Your task to perform on an android device: turn off notifications in google photos Image 0: 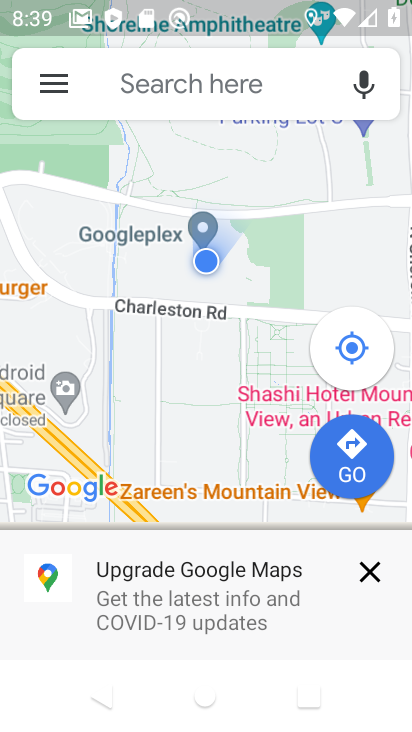
Step 0: press home button
Your task to perform on an android device: turn off notifications in google photos Image 1: 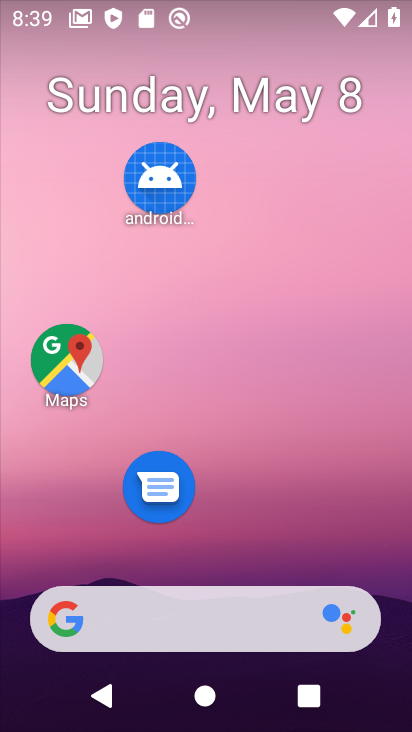
Step 1: drag from (272, 556) to (304, 44)
Your task to perform on an android device: turn off notifications in google photos Image 2: 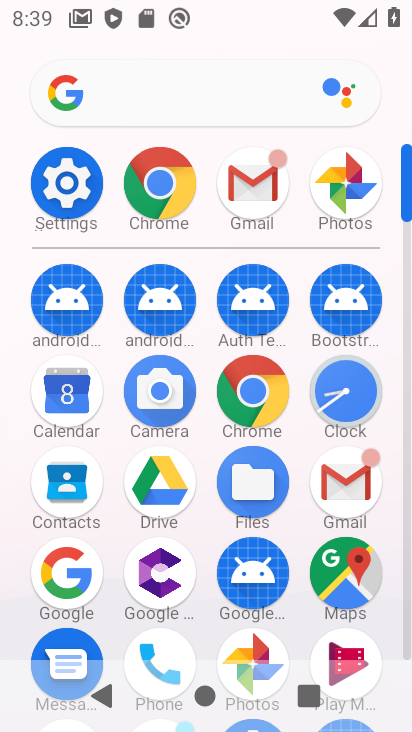
Step 2: click (240, 651)
Your task to perform on an android device: turn off notifications in google photos Image 3: 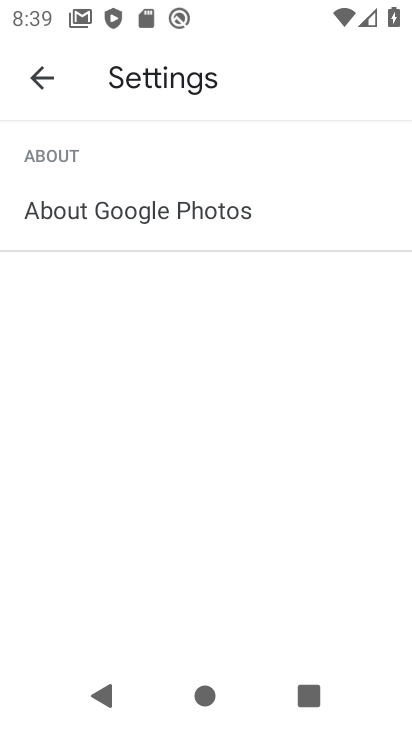
Step 3: click (47, 80)
Your task to perform on an android device: turn off notifications in google photos Image 4: 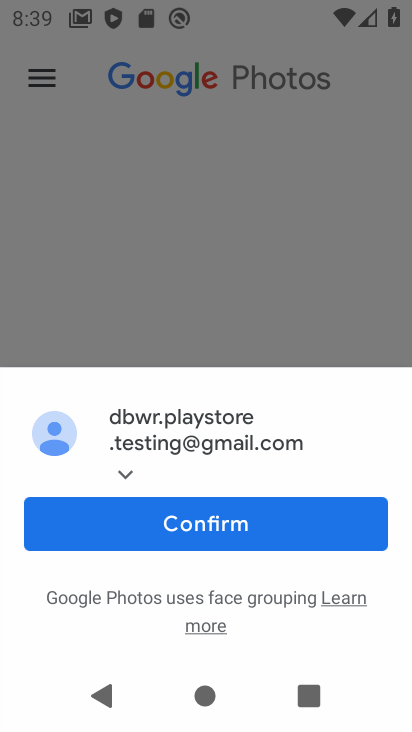
Step 4: click (62, 79)
Your task to perform on an android device: turn off notifications in google photos Image 5: 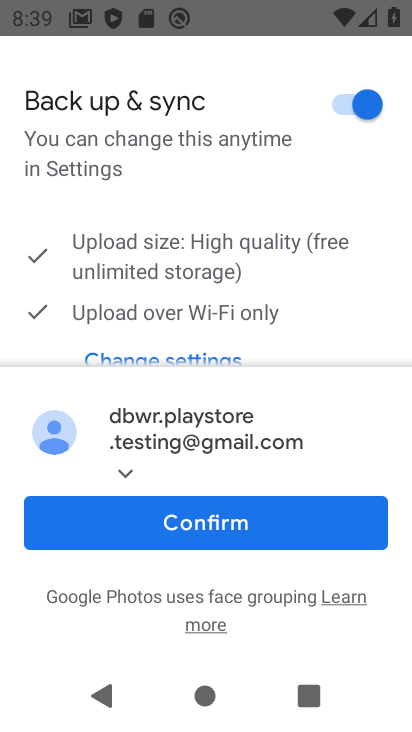
Step 5: click (200, 519)
Your task to perform on an android device: turn off notifications in google photos Image 6: 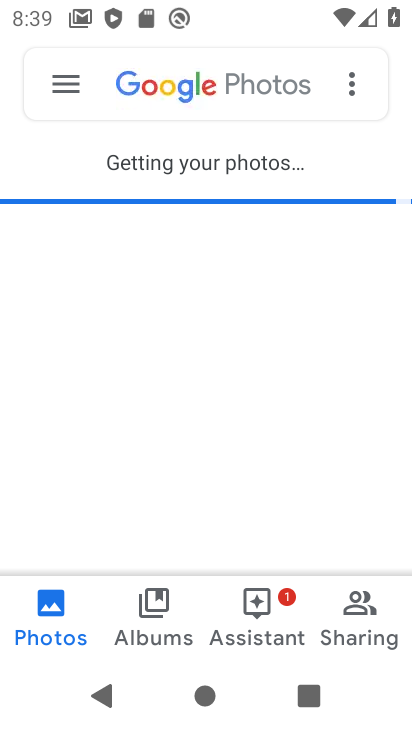
Step 6: click (66, 87)
Your task to perform on an android device: turn off notifications in google photos Image 7: 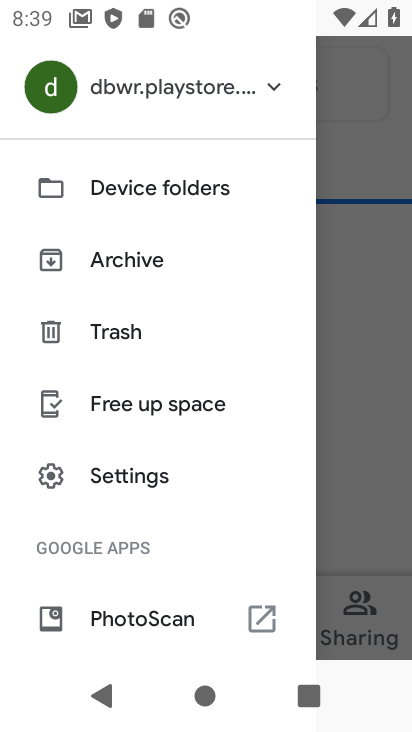
Step 7: click (98, 487)
Your task to perform on an android device: turn off notifications in google photos Image 8: 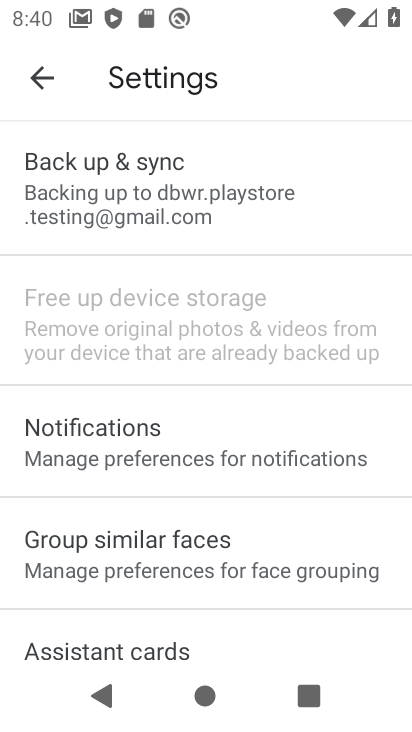
Step 8: click (218, 434)
Your task to perform on an android device: turn off notifications in google photos Image 9: 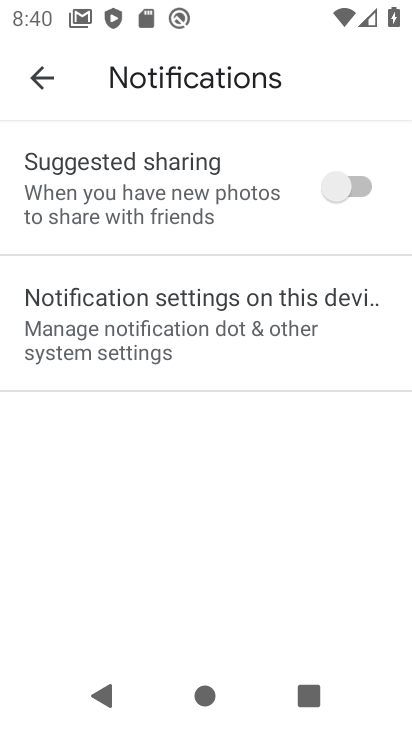
Step 9: task complete